Your task to perform on an android device: install app "Reddit" Image 0: 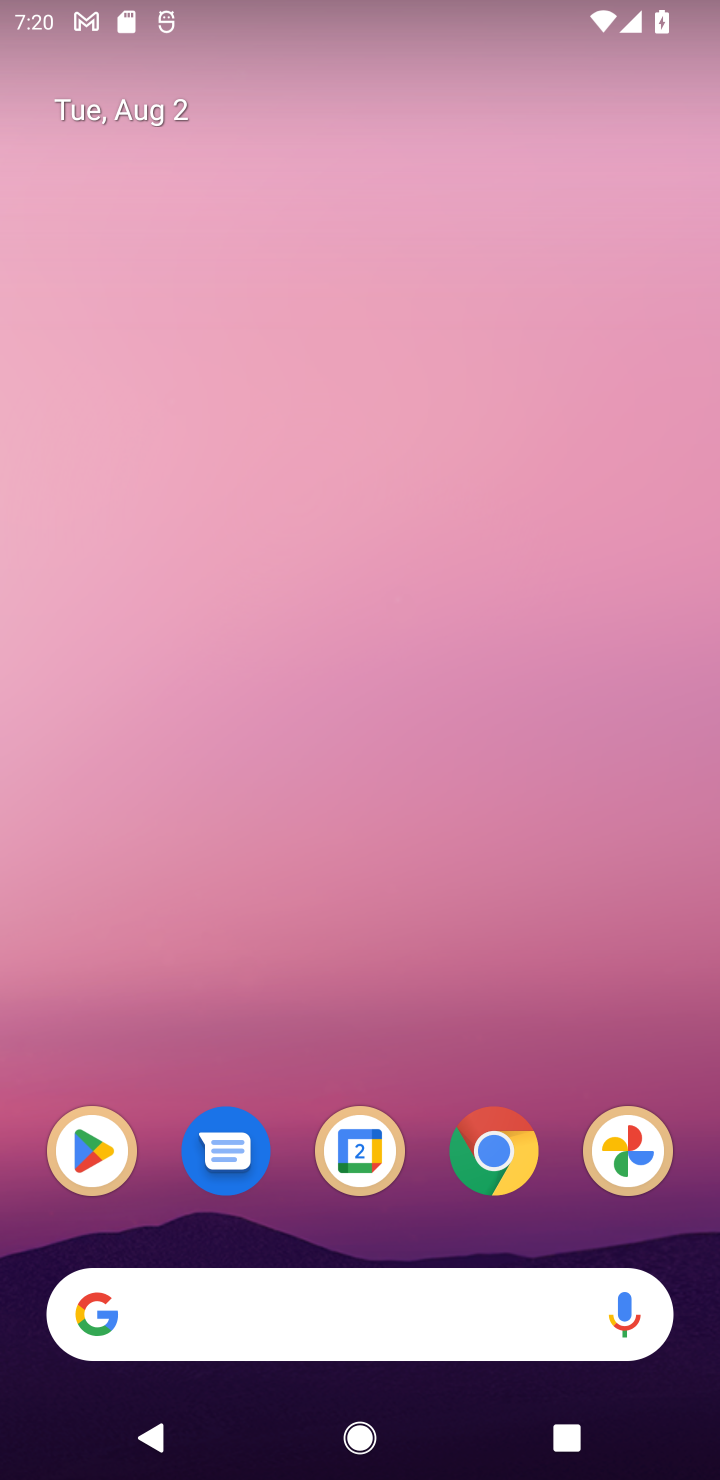
Step 0: drag from (451, 1243) to (305, 195)
Your task to perform on an android device: install app "Reddit" Image 1: 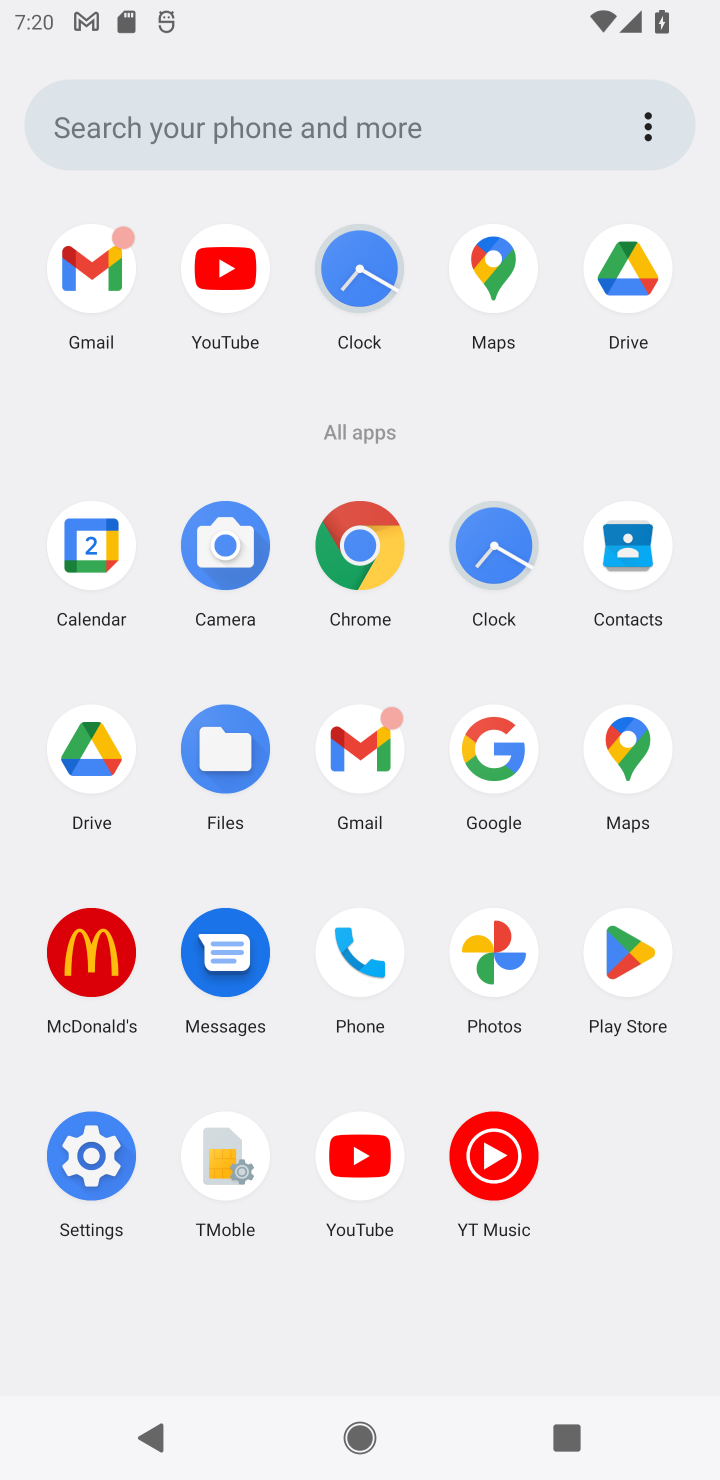
Step 1: click (619, 966)
Your task to perform on an android device: install app "Reddit" Image 2: 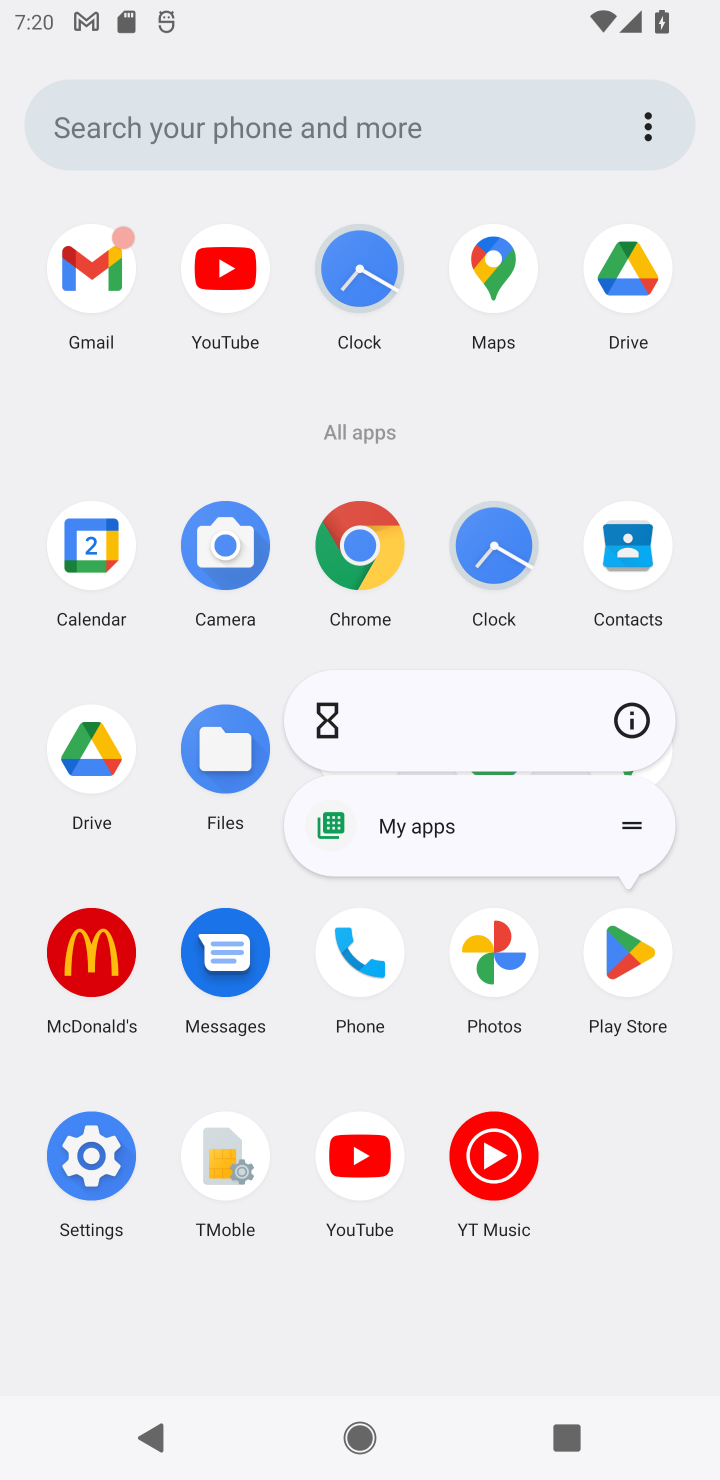
Step 2: click (616, 971)
Your task to perform on an android device: install app "Reddit" Image 3: 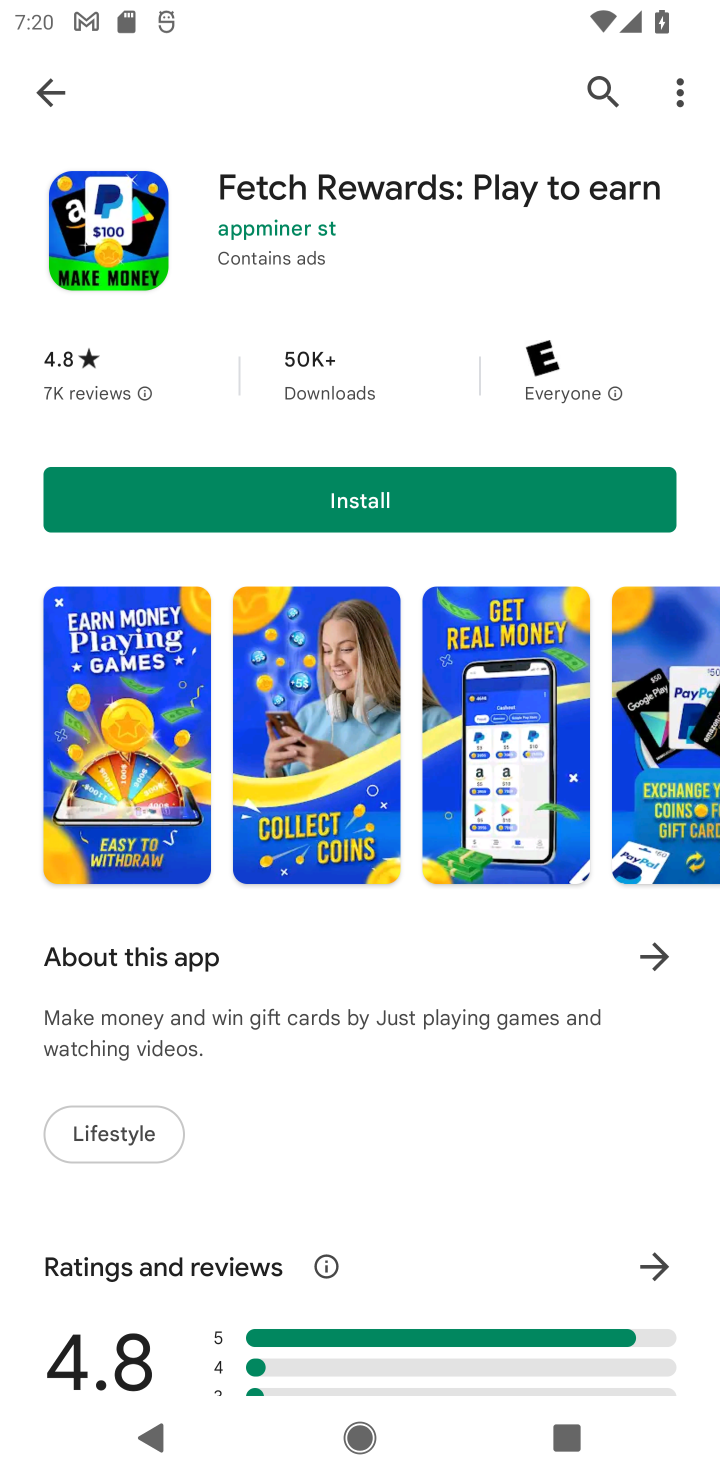
Step 3: click (42, 67)
Your task to perform on an android device: install app "Reddit" Image 4: 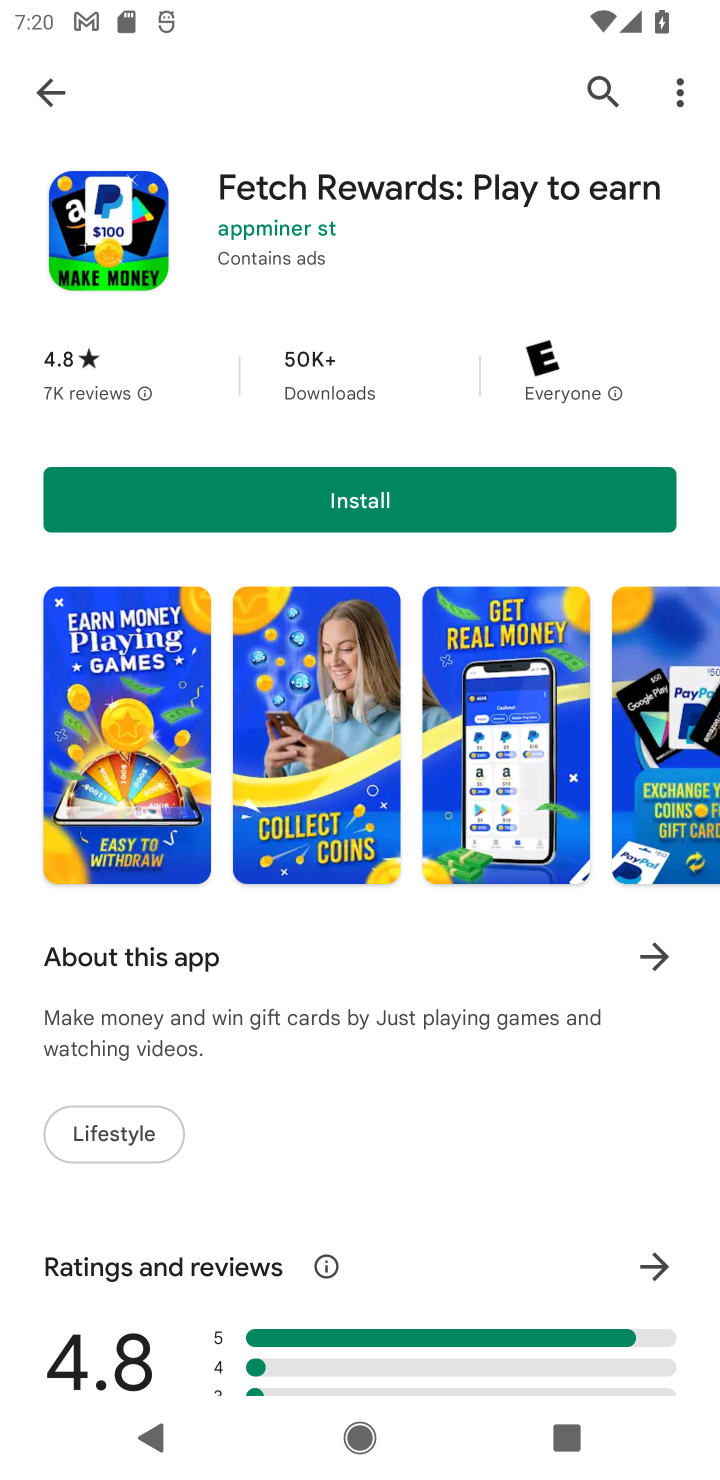
Step 4: click (52, 123)
Your task to perform on an android device: install app "Reddit" Image 5: 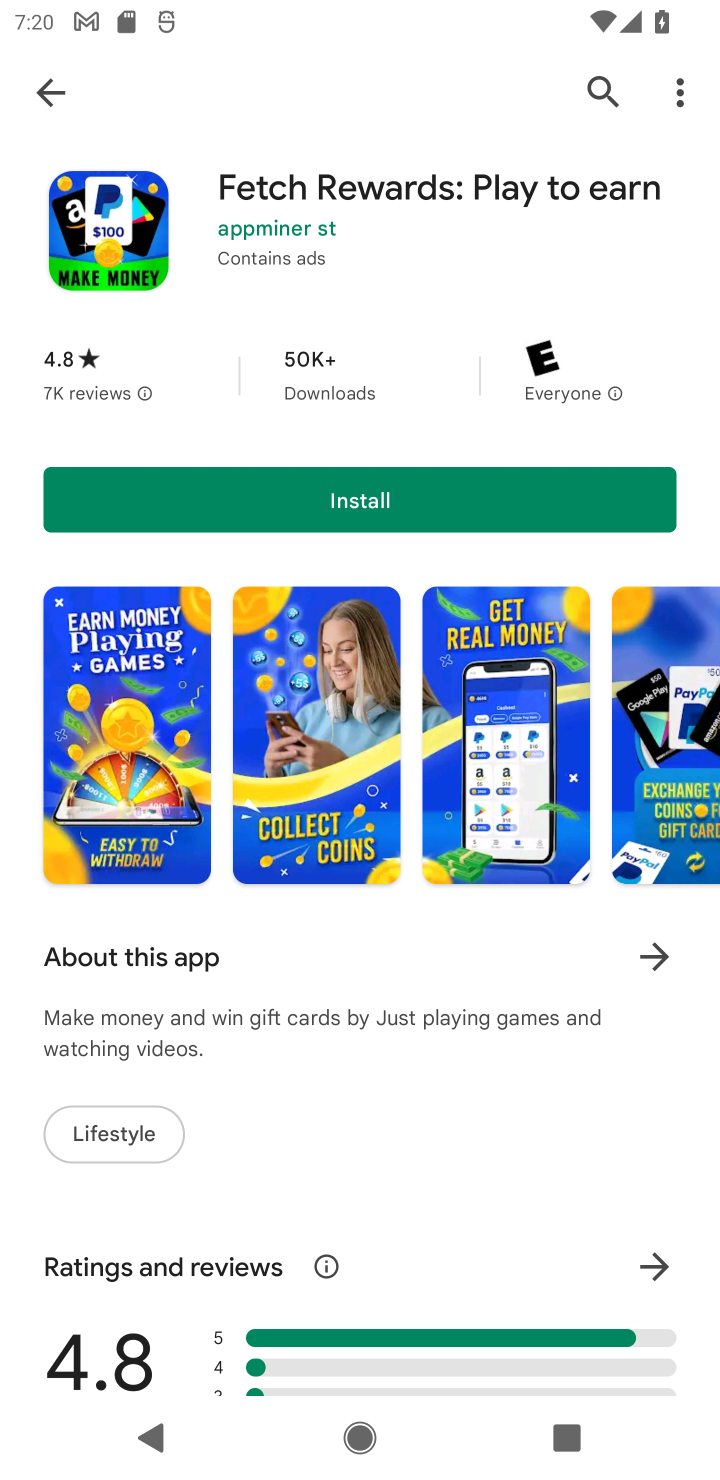
Step 5: click (0, 101)
Your task to perform on an android device: install app "Reddit" Image 6: 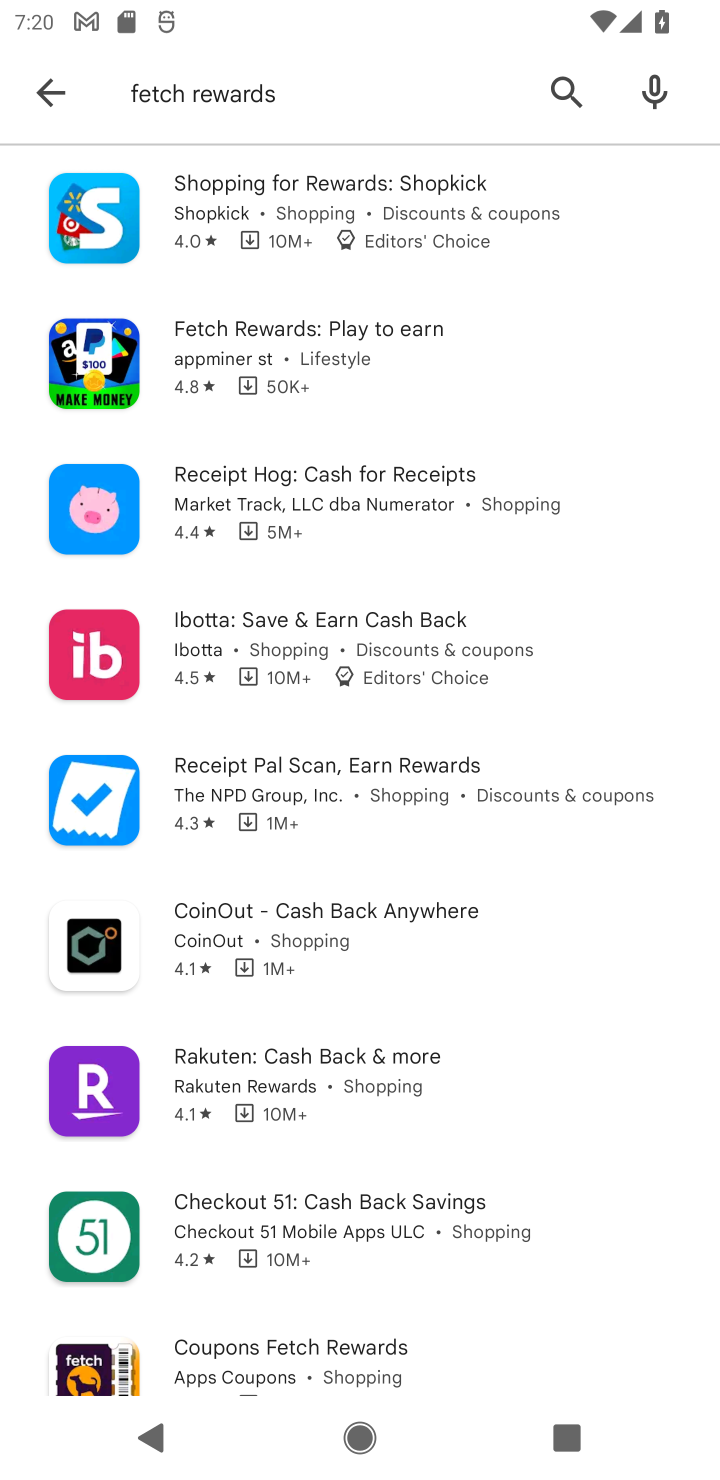
Step 6: click (557, 76)
Your task to perform on an android device: install app "Reddit" Image 7: 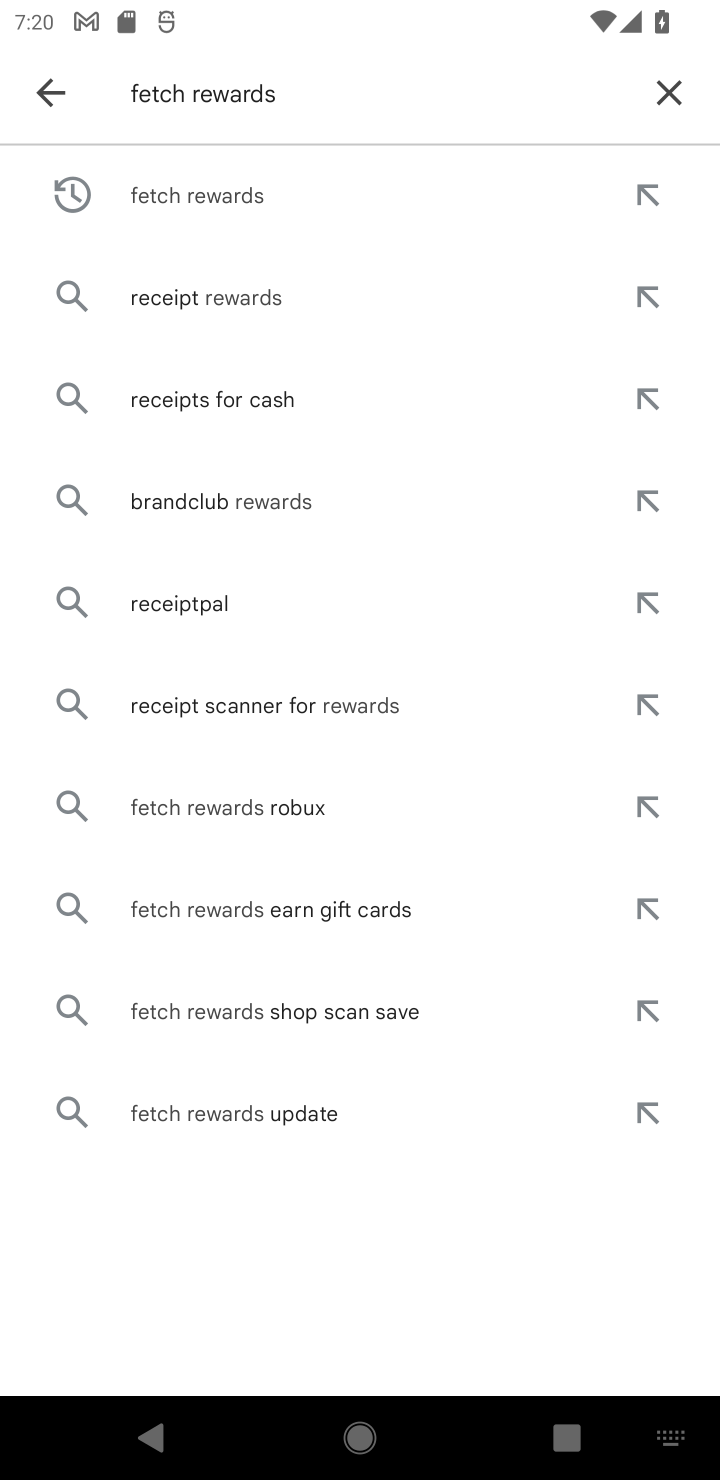
Step 7: click (636, 91)
Your task to perform on an android device: install app "Reddit" Image 8: 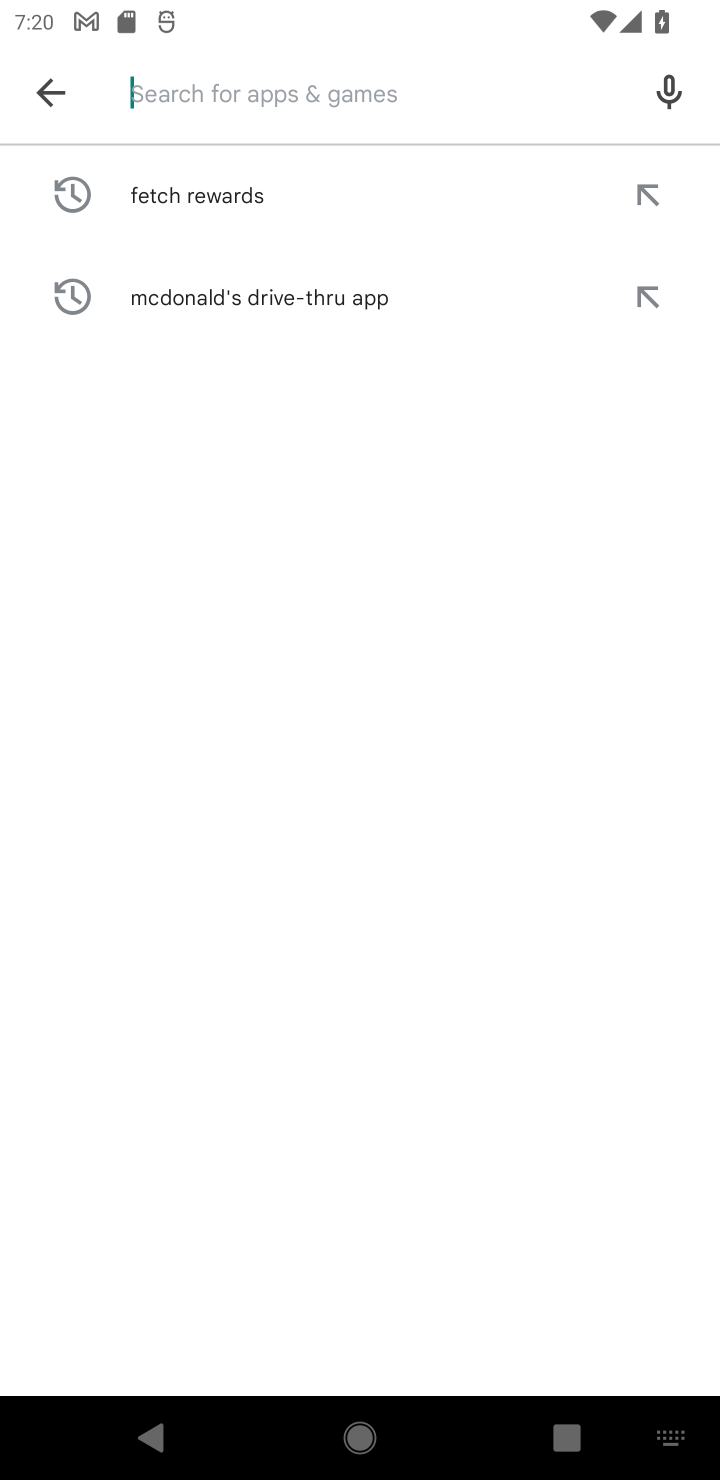
Step 8: type "Reddit"
Your task to perform on an android device: install app "Reddit" Image 9: 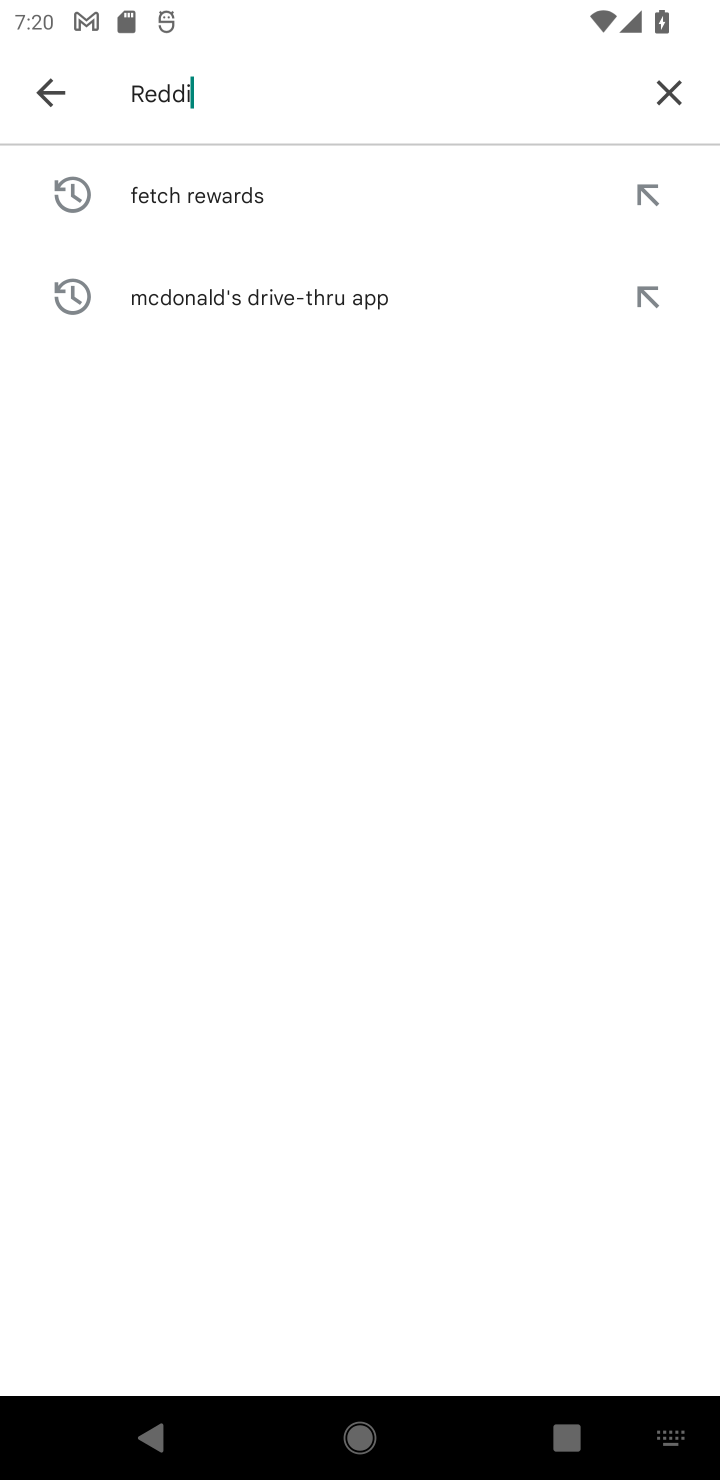
Step 9: type ""
Your task to perform on an android device: install app "Reddit" Image 10: 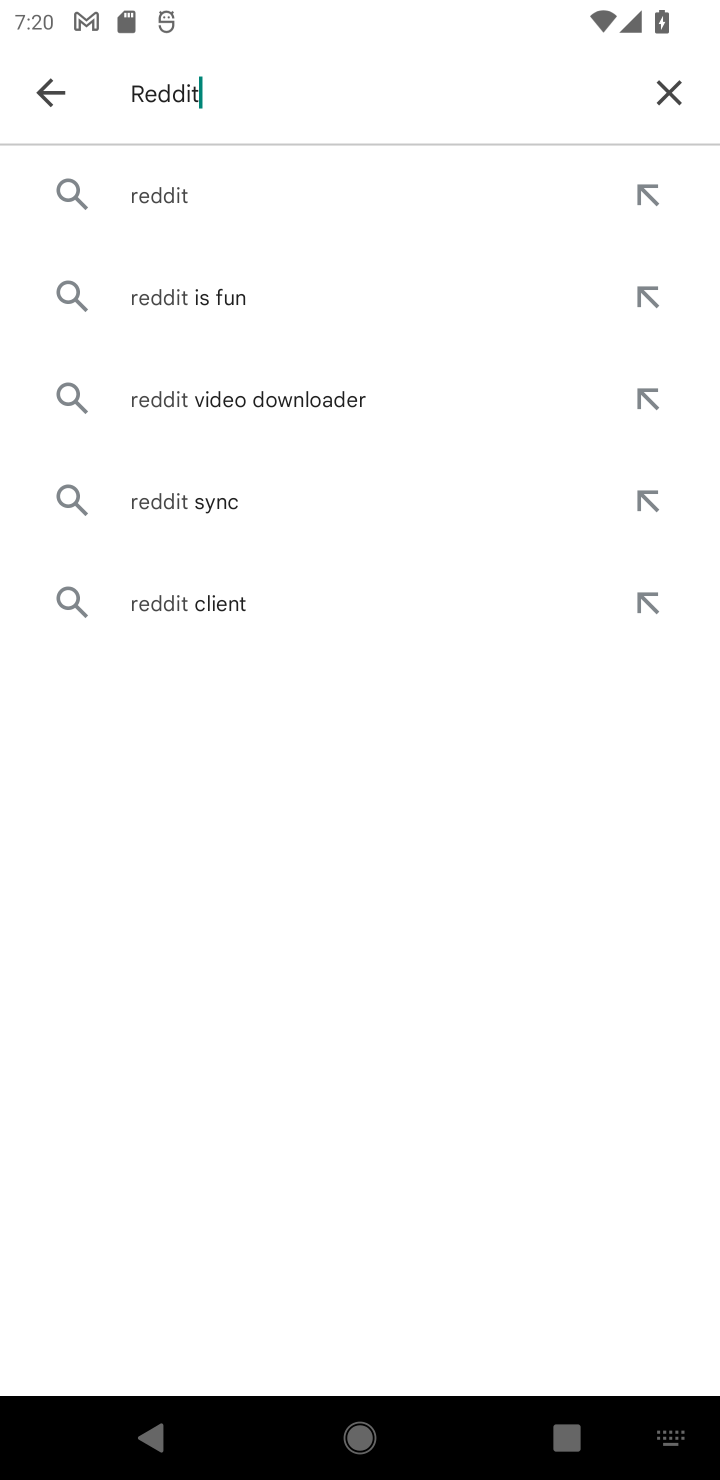
Step 10: click (105, 204)
Your task to perform on an android device: install app "Reddit" Image 11: 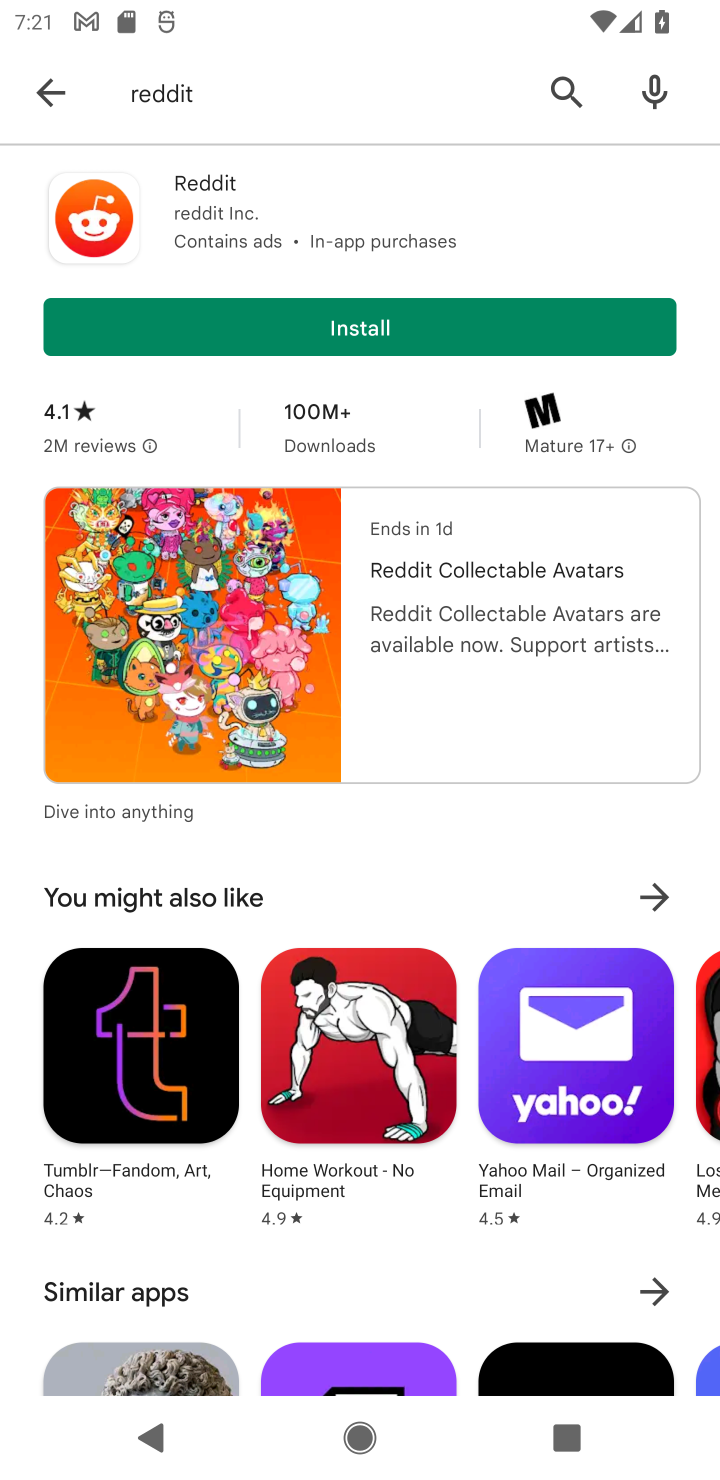
Step 11: click (466, 336)
Your task to perform on an android device: install app "Reddit" Image 12: 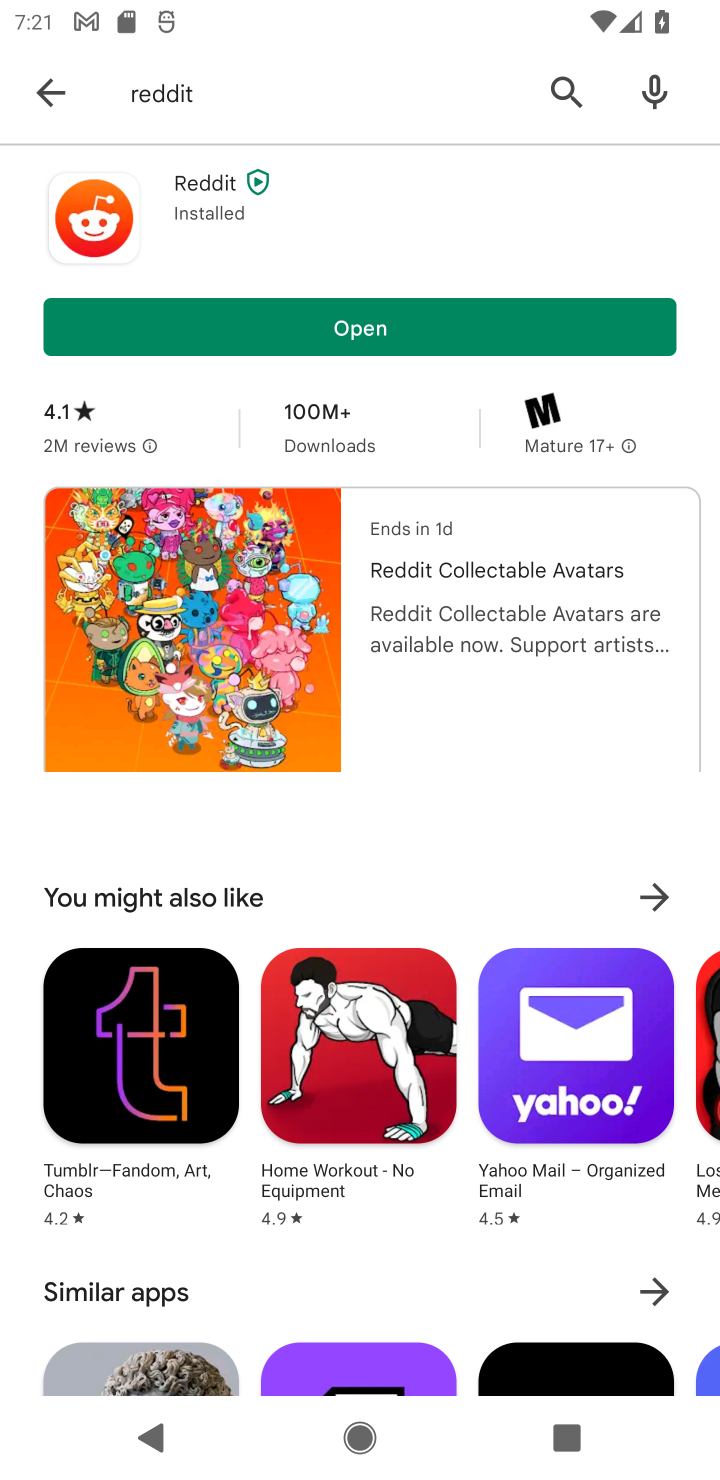
Step 12: click (276, 325)
Your task to perform on an android device: install app "Reddit" Image 13: 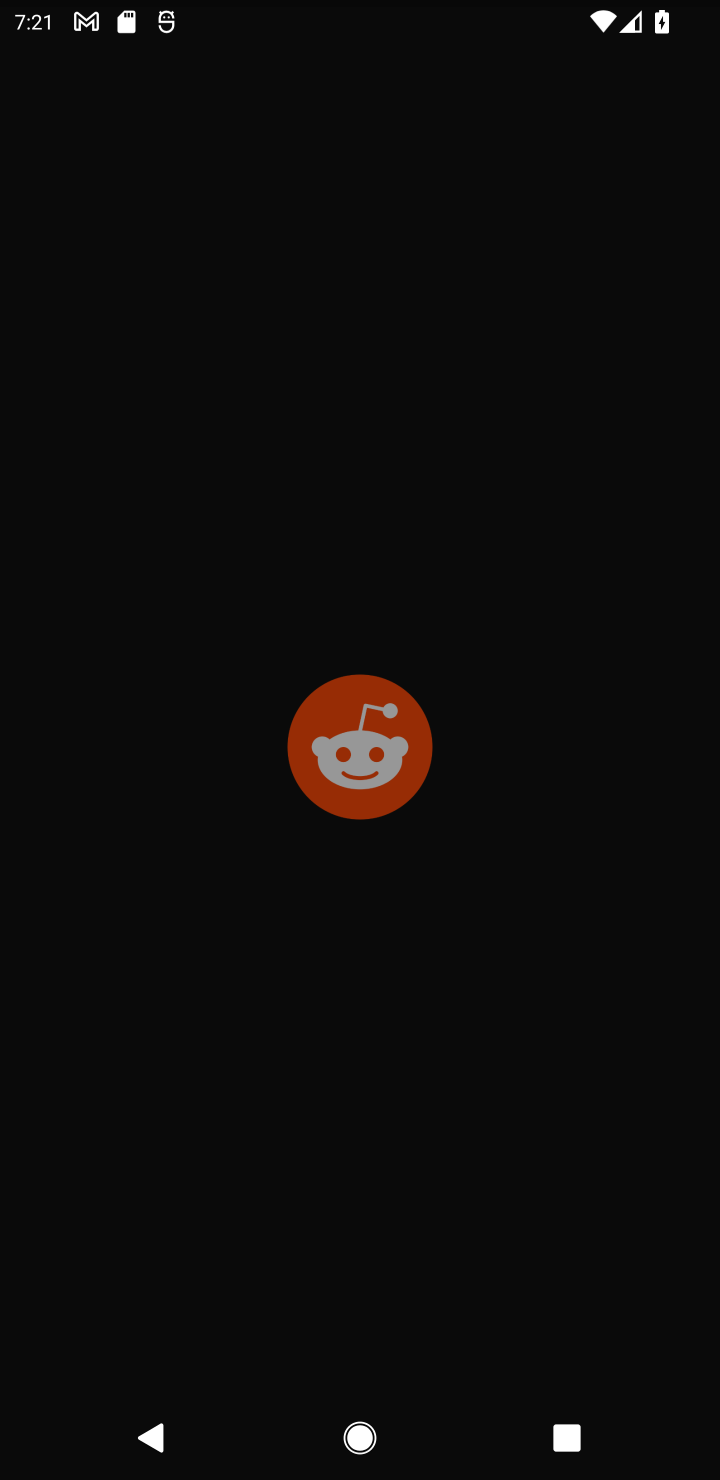
Step 13: task complete